Your task to perform on an android device: What's on my calendar today? Image 0: 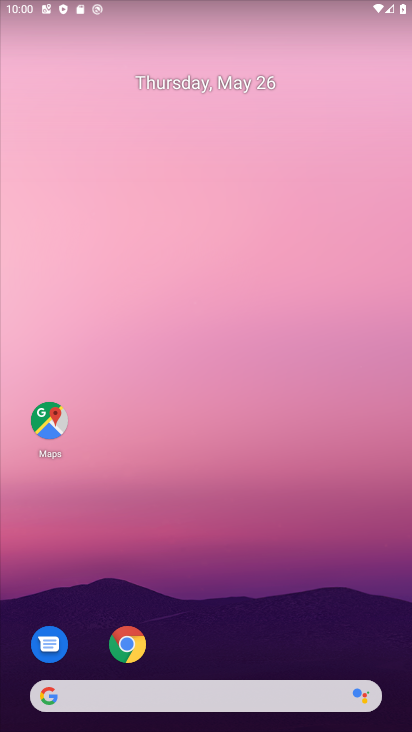
Step 0: drag from (292, 517) to (318, 294)
Your task to perform on an android device: What's on my calendar today? Image 1: 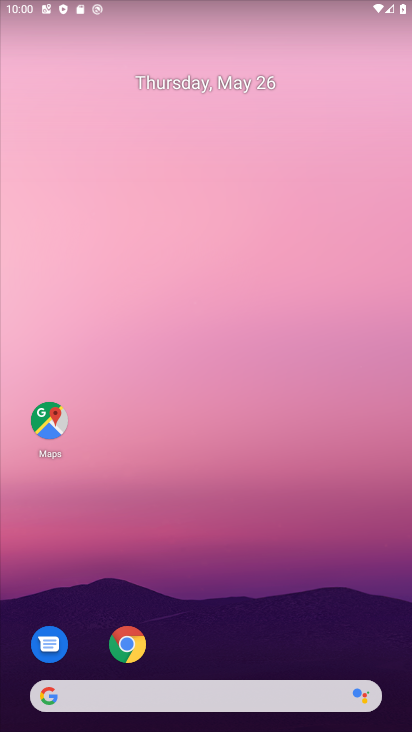
Step 1: drag from (374, 583) to (364, 220)
Your task to perform on an android device: What's on my calendar today? Image 2: 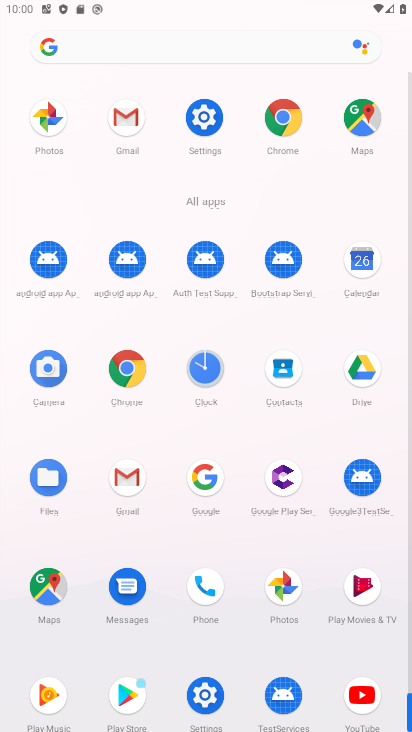
Step 2: click (359, 269)
Your task to perform on an android device: What's on my calendar today? Image 3: 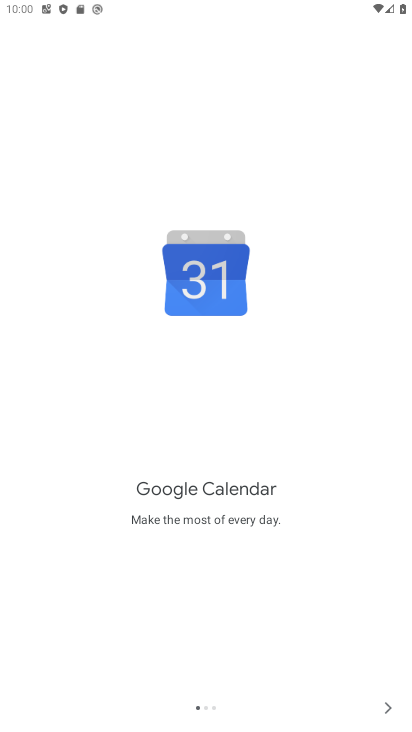
Step 3: click (381, 716)
Your task to perform on an android device: What's on my calendar today? Image 4: 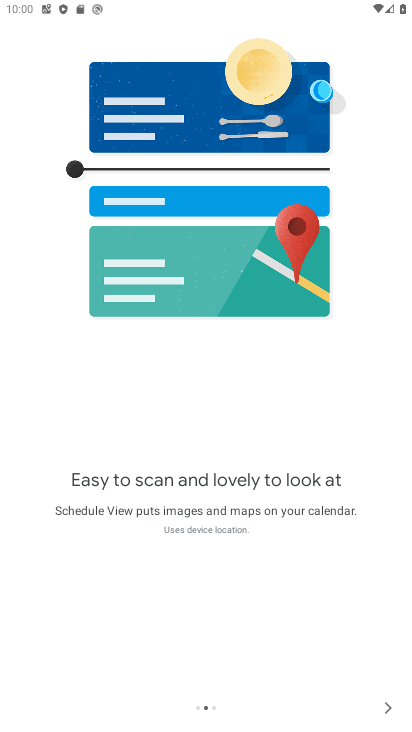
Step 4: click (381, 716)
Your task to perform on an android device: What's on my calendar today? Image 5: 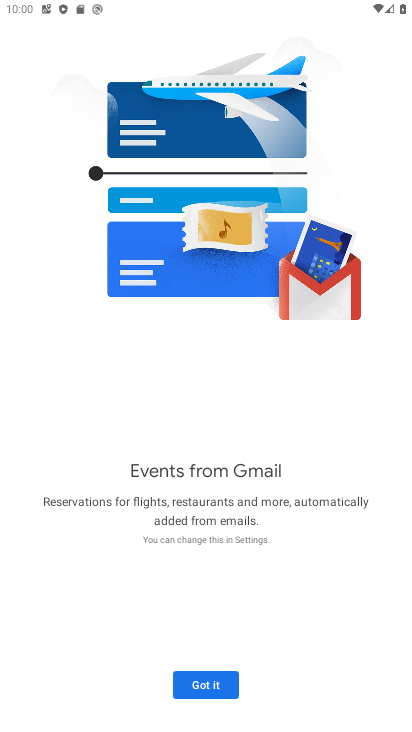
Step 5: click (214, 684)
Your task to perform on an android device: What's on my calendar today? Image 6: 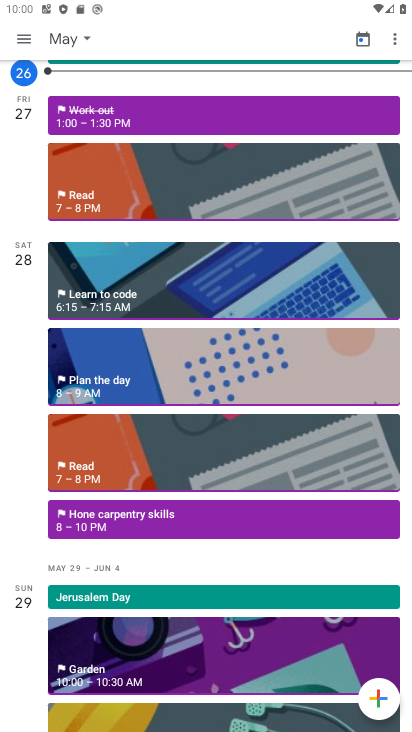
Step 6: click (104, 118)
Your task to perform on an android device: What's on my calendar today? Image 7: 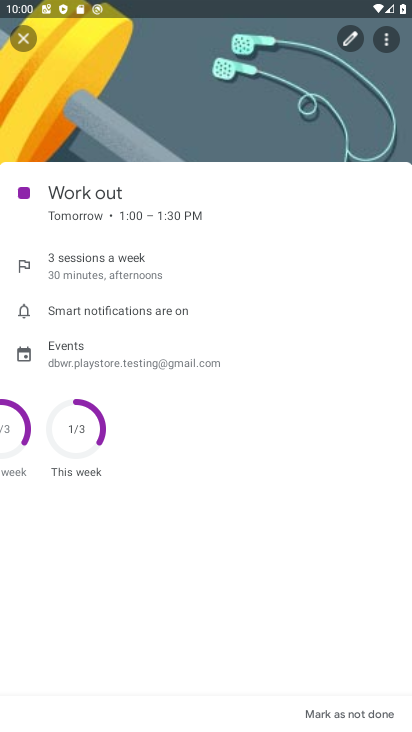
Step 7: task complete